Your task to perform on an android device: Go to accessibility settings Image 0: 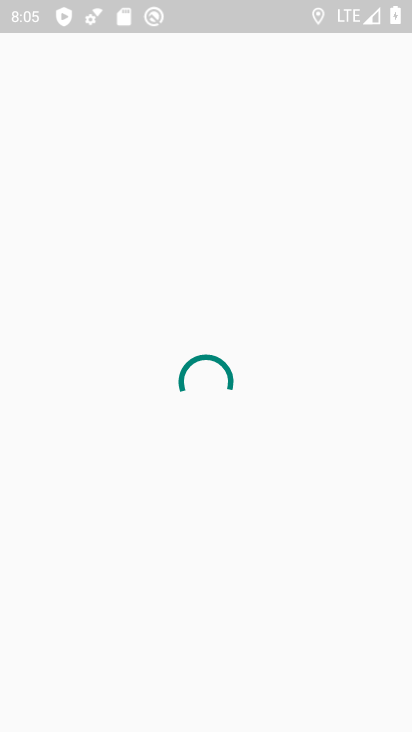
Step 0: press home button
Your task to perform on an android device: Go to accessibility settings Image 1: 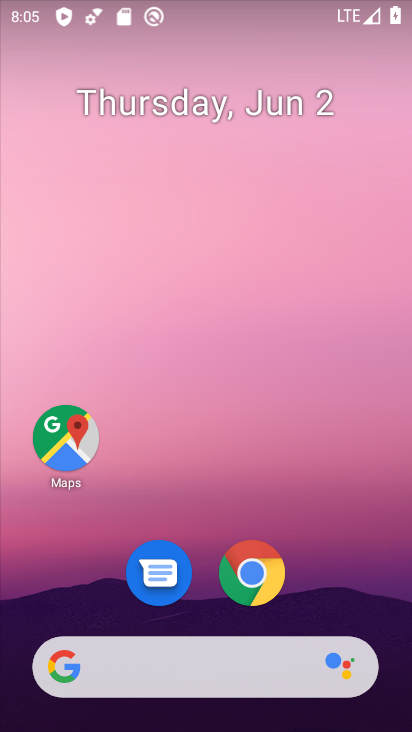
Step 1: drag from (340, 528) to (228, 11)
Your task to perform on an android device: Go to accessibility settings Image 2: 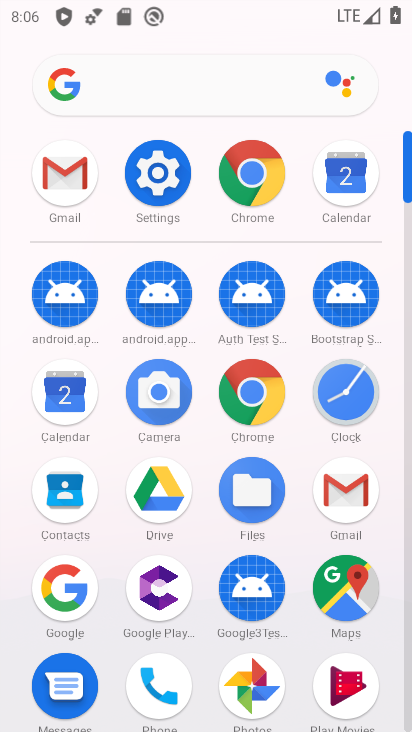
Step 2: click (171, 173)
Your task to perform on an android device: Go to accessibility settings Image 3: 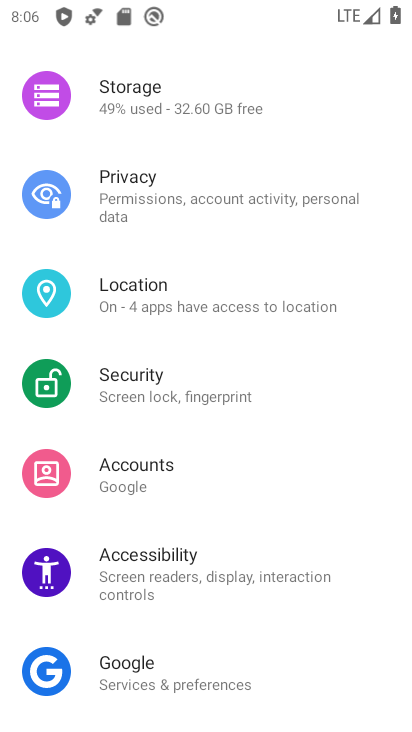
Step 3: click (251, 588)
Your task to perform on an android device: Go to accessibility settings Image 4: 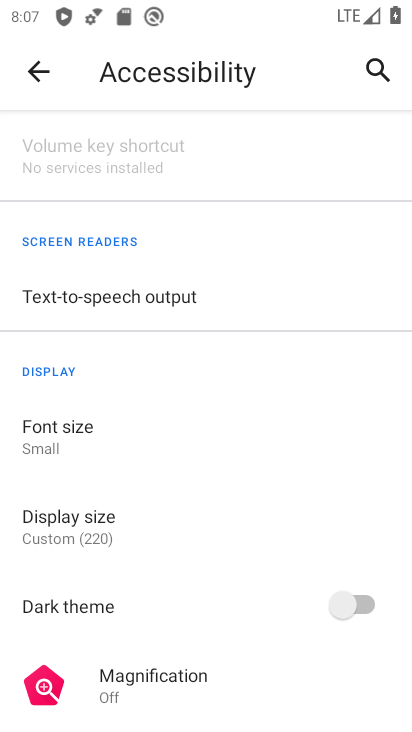
Step 4: task complete